Your task to perform on an android device: What is the news today? Image 0: 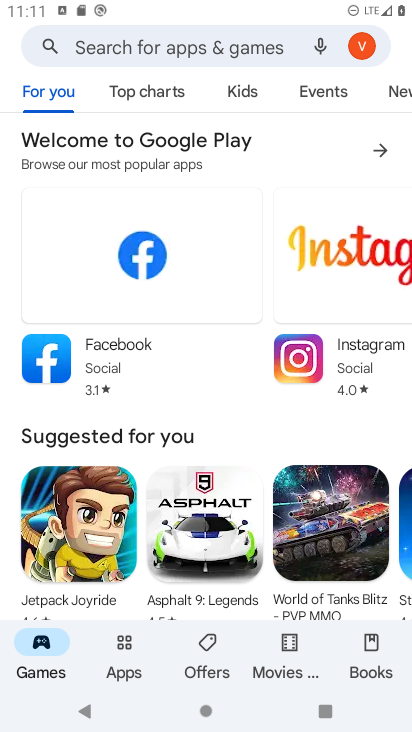
Step 0: press home button
Your task to perform on an android device: What is the news today? Image 1: 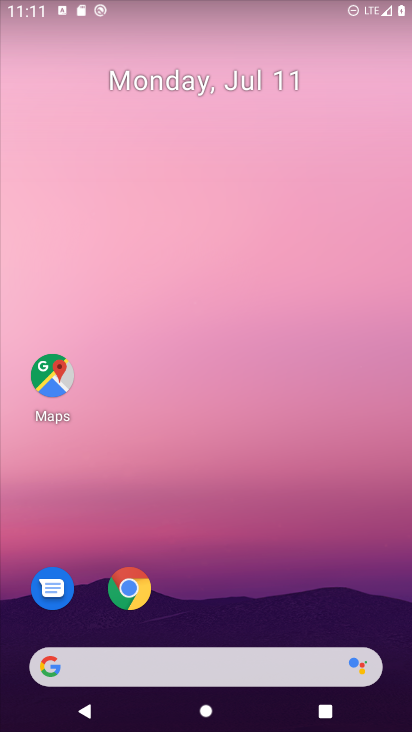
Step 1: drag from (392, 633) to (147, 49)
Your task to perform on an android device: What is the news today? Image 2: 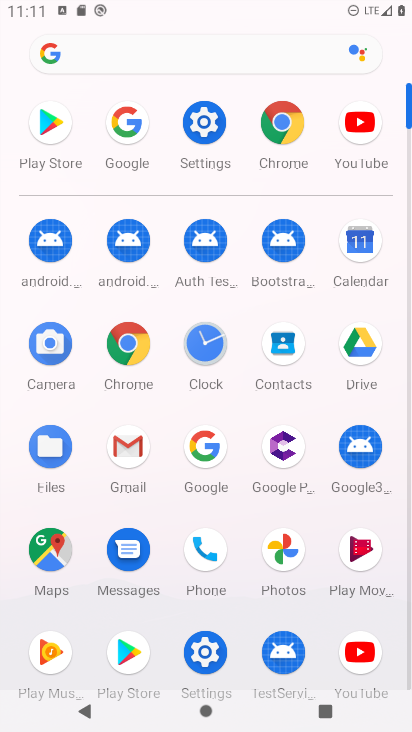
Step 2: click (193, 473)
Your task to perform on an android device: What is the news today? Image 3: 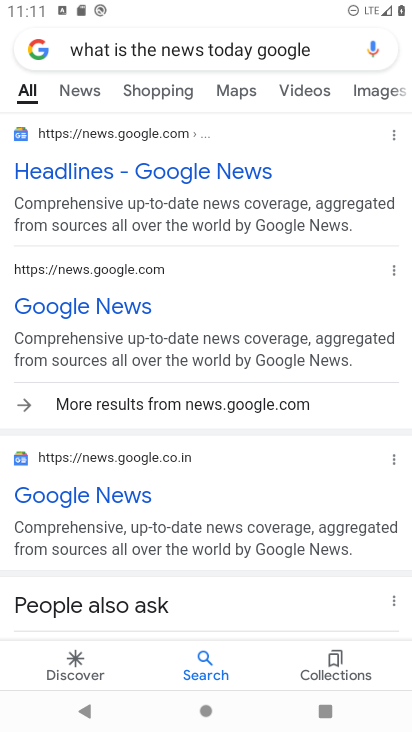
Step 3: press back button
Your task to perform on an android device: What is the news today? Image 4: 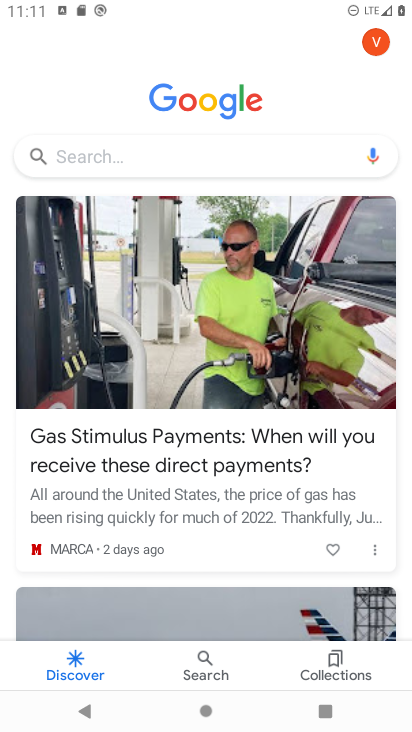
Step 4: click (221, 164)
Your task to perform on an android device: What is the news today? Image 5: 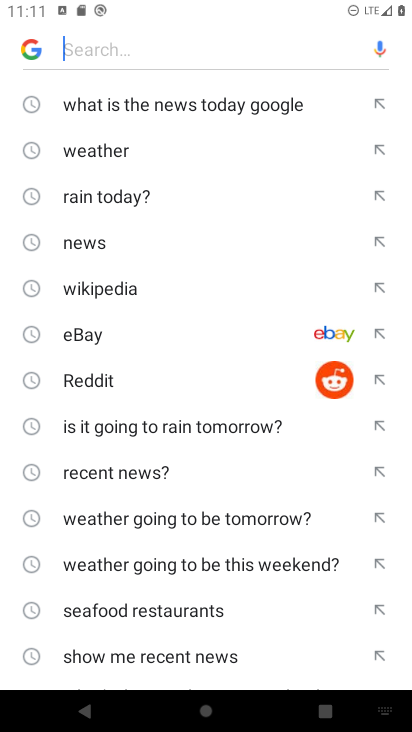
Step 5: type "What is the news today?"
Your task to perform on an android device: What is the news today? Image 6: 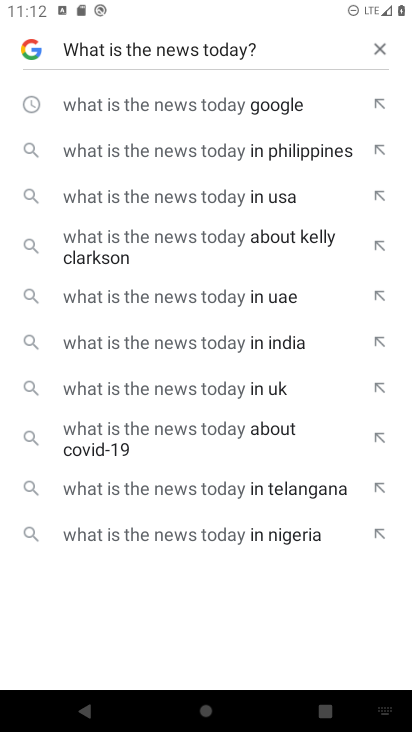
Step 6: click (155, 101)
Your task to perform on an android device: What is the news today? Image 7: 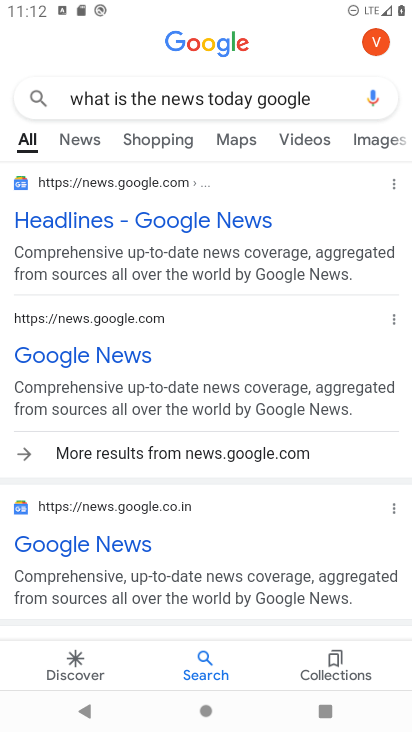
Step 7: task complete